Your task to perform on an android device: Open Youtube and go to the subscriptions tab Image 0: 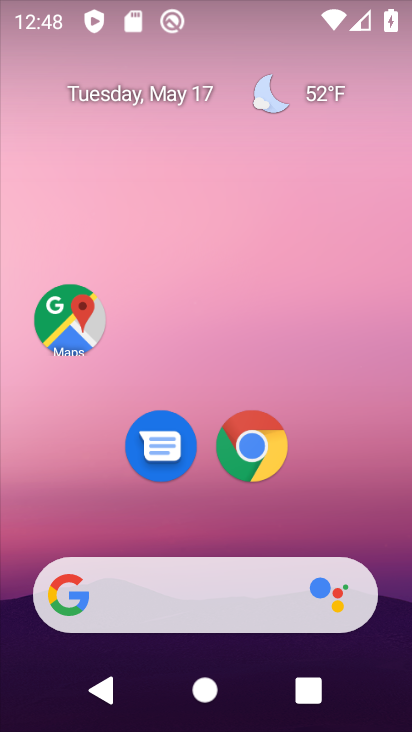
Step 0: drag from (365, 513) to (294, 179)
Your task to perform on an android device: Open Youtube and go to the subscriptions tab Image 1: 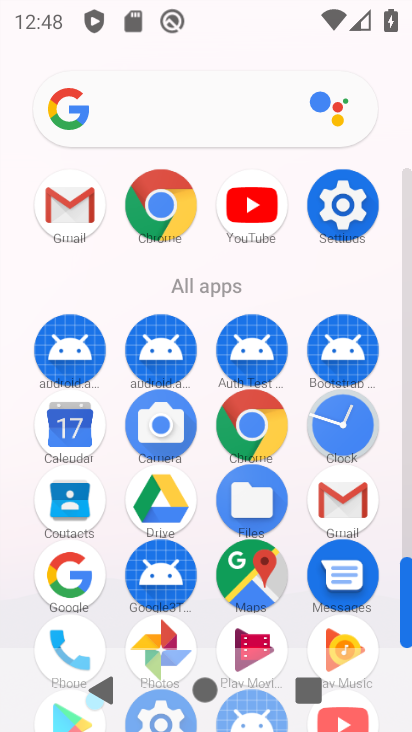
Step 1: drag from (276, 288) to (255, 99)
Your task to perform on an android device: Open Youtube and go to the subscriptions tab Image 2: 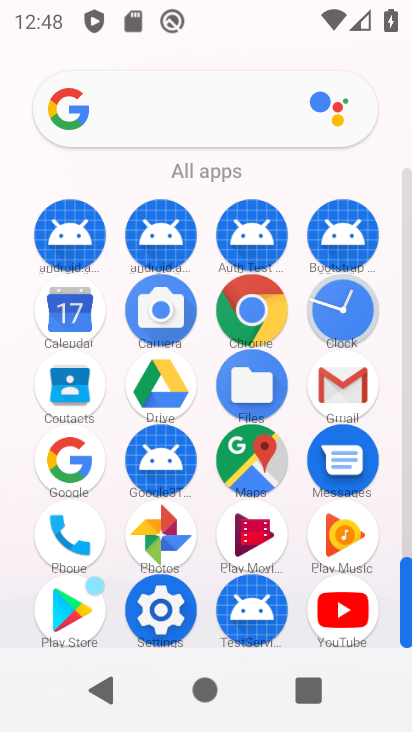
Step 2: click (345, 606)
Your task to perform on an android device: Open Youtube and go to the subscriptions tab Image 3: 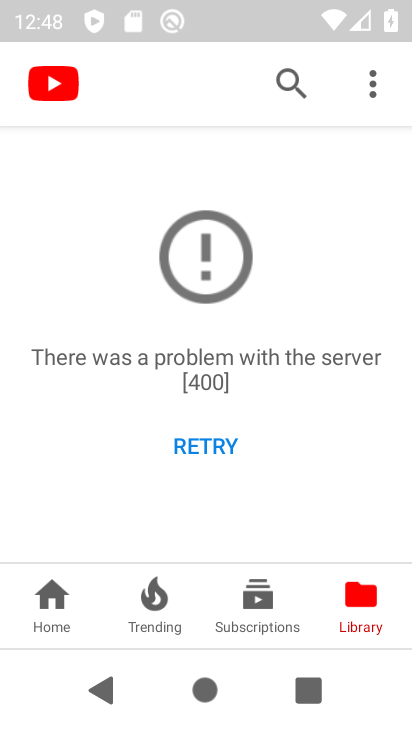
Step 3: click (266, 595)
Your task to perform on an android device: Open Youtube and go to the subscriptions tab Image 4: 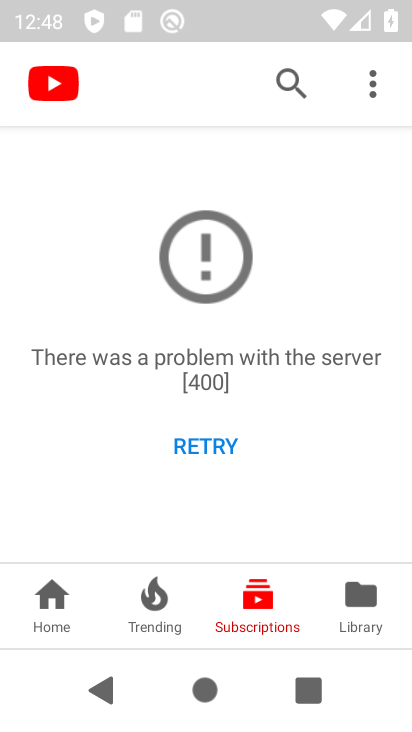
Step 4: task complete